Your task to perform on an android device: Open sound settings Image 0: 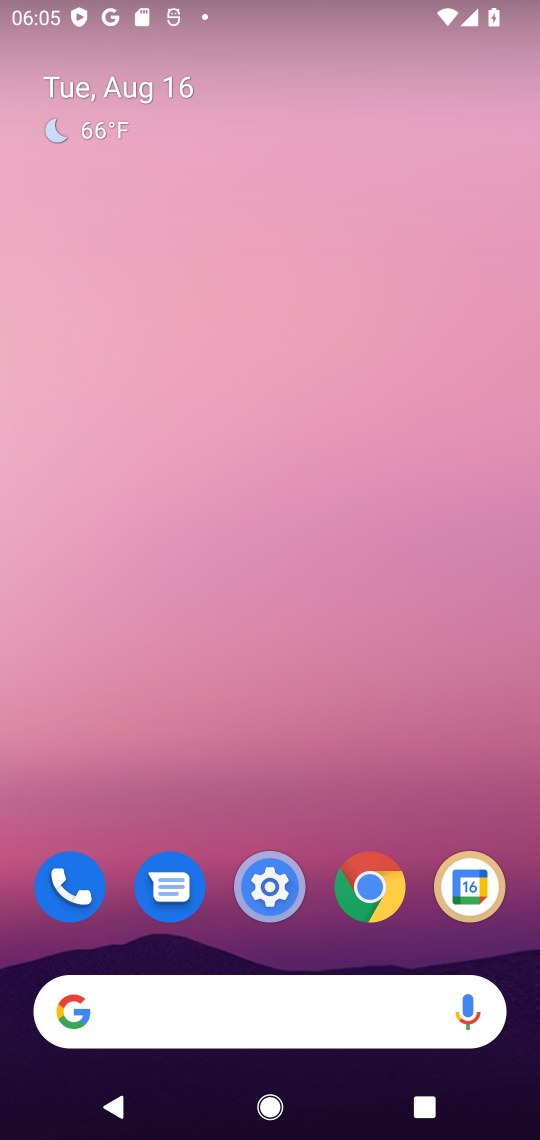
Step 0: drag from (416, 815) to (430, 86)
Your task to perform on an android device: Open sound settings Image 1: 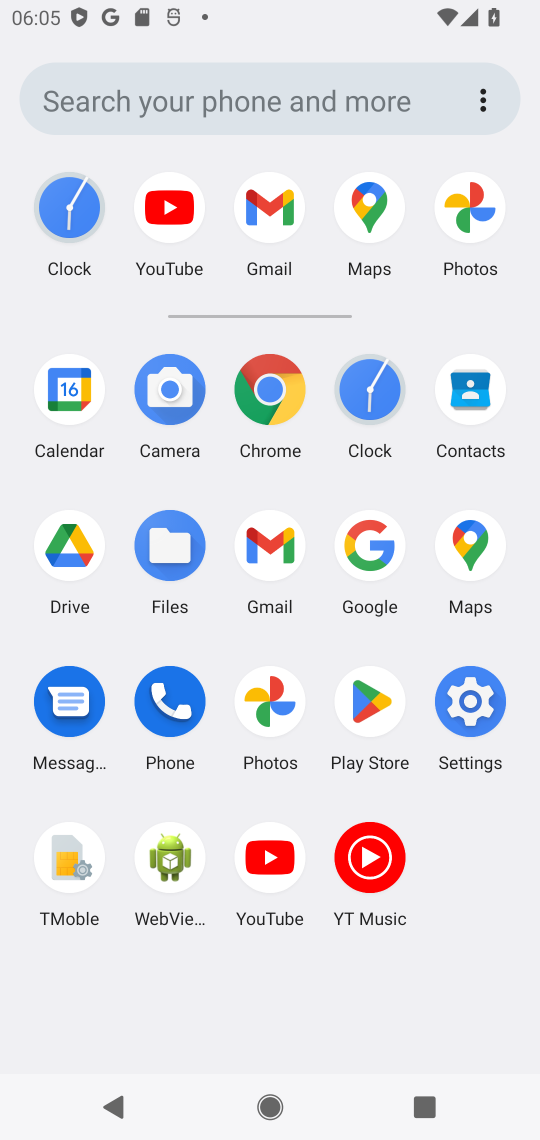
Step 1: click (471, 697)
Your task to perform on an android device: Open sound settings Image 2: 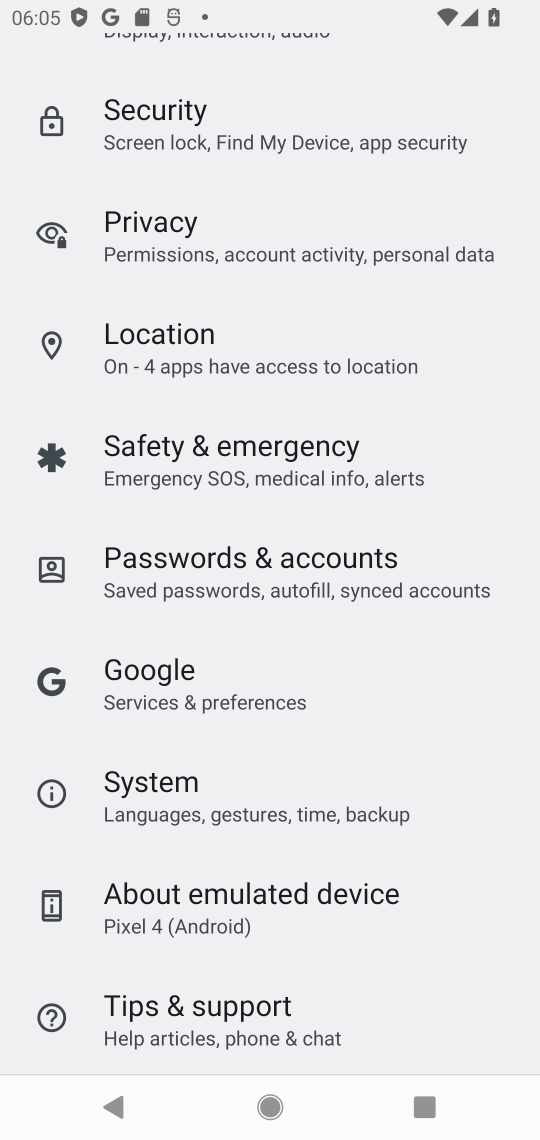
Step 2: drag from (369, 182) to (271, 852)
Your task to perform on an android device: Open sound settings Image 3: 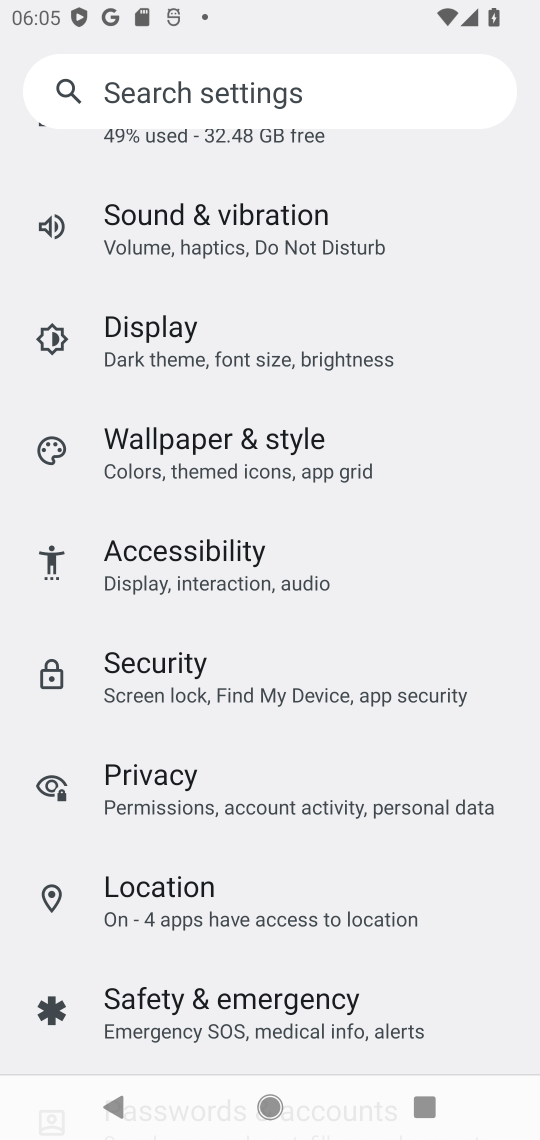
Step 3: click (300, 214)
Your task to perform on an android device: Open sound settings Image 4: 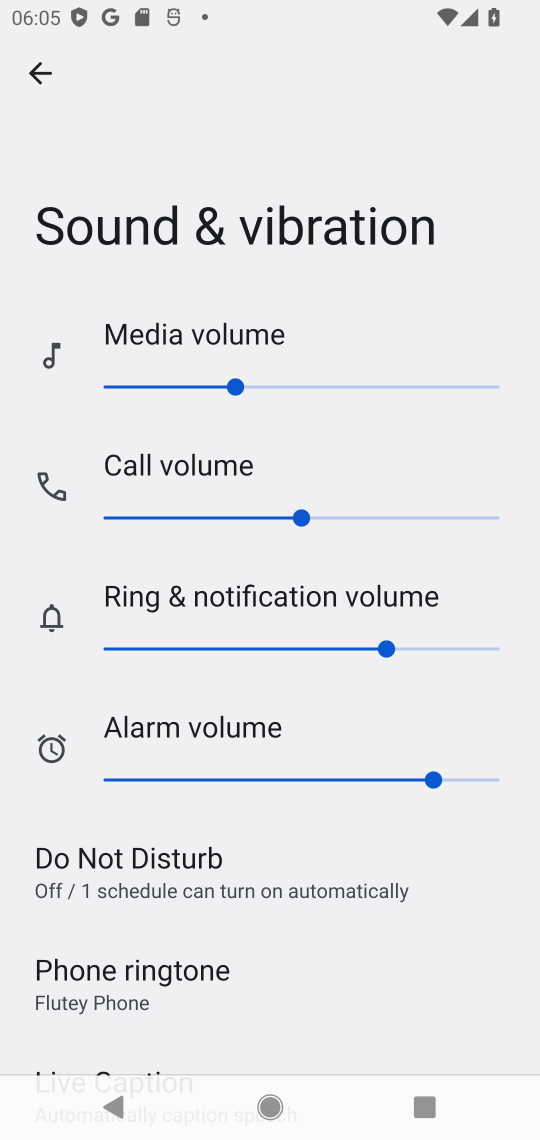
Step 4: task complete